Your task to perform on an android device: Open notification settings Image 0: 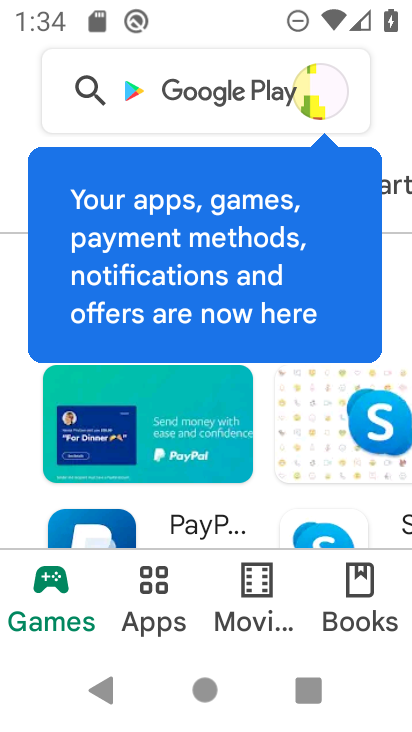
Step 0: press home button
Your task to perform on an android device: Open notification settings Image 1: 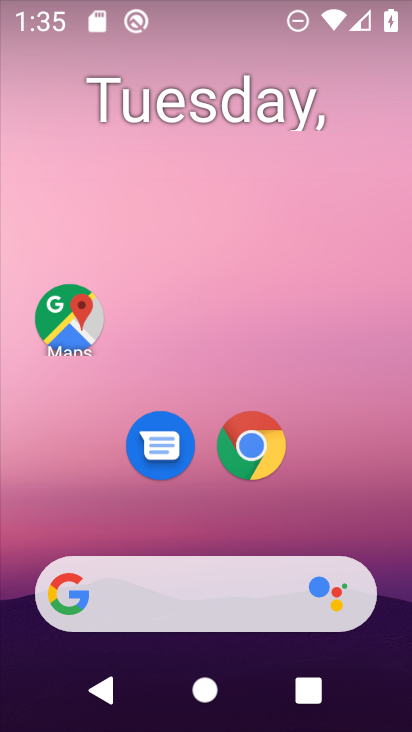
Step 1: drag from (280, 544) to (306, 168)
Your task to perform on an android device: Open notification settings Image 2: 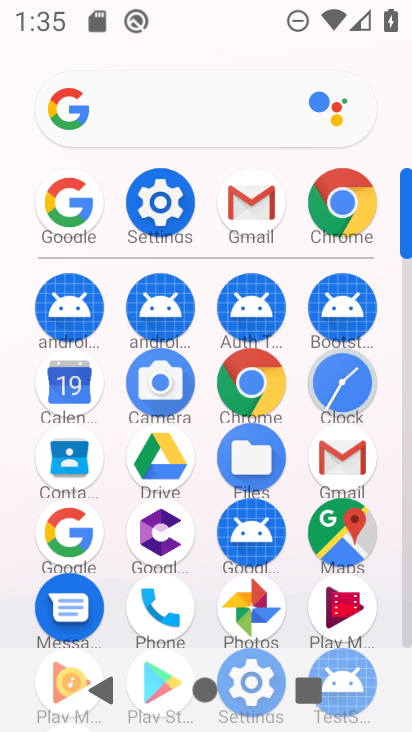
Step 2: click (163, 225)
Your task to perform on an android device: Open notification settings Image 3: 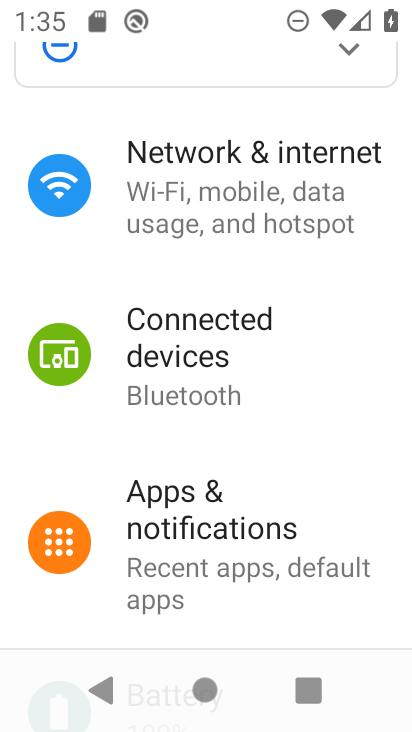
Step 3: drag from (250, 568) to (258, 394)
Your task to perform on an android device: Open notification settings Image 4: 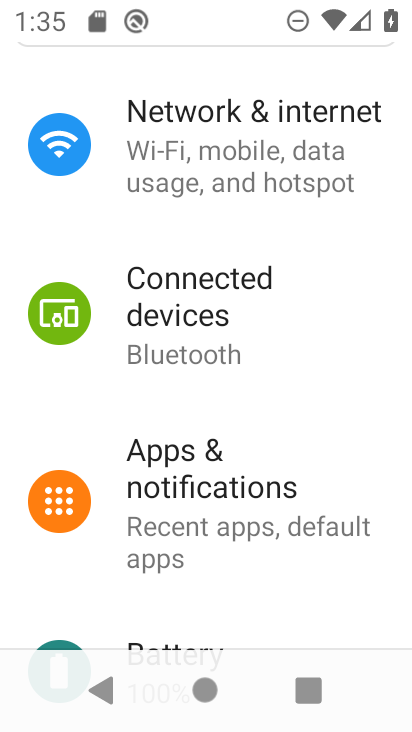
Step 4: click (246, 455)
Your task to perform on an android device: Open notification settings Image 5: 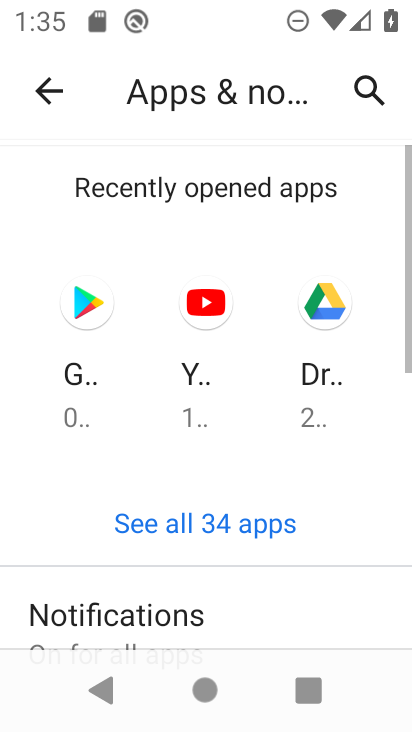
Step 5: click (202, 624)
Your task to perform on an android device: Open notification settings Image 6: 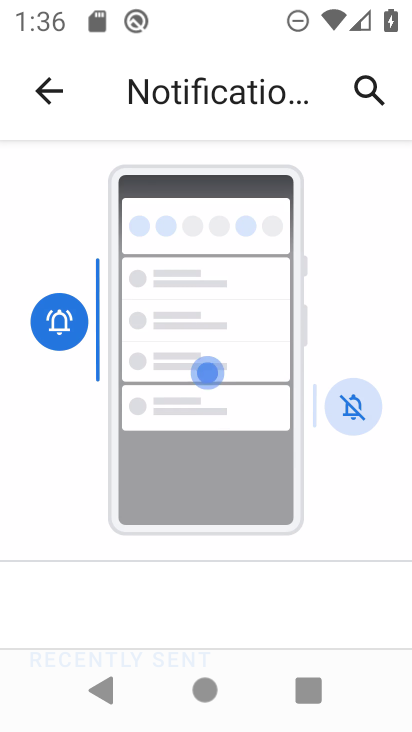
Step 6: task complete